Your task to perform on an android device: Go to internet settings Image 0: 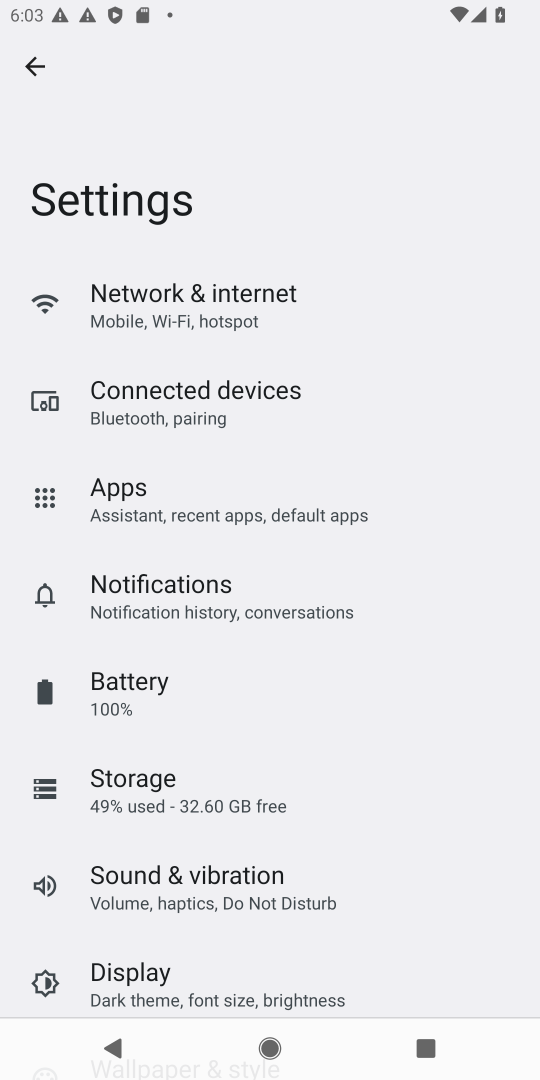
Step 0: click (135, 302)
Your task to perform on an android device: Go to internet settings Image 1: 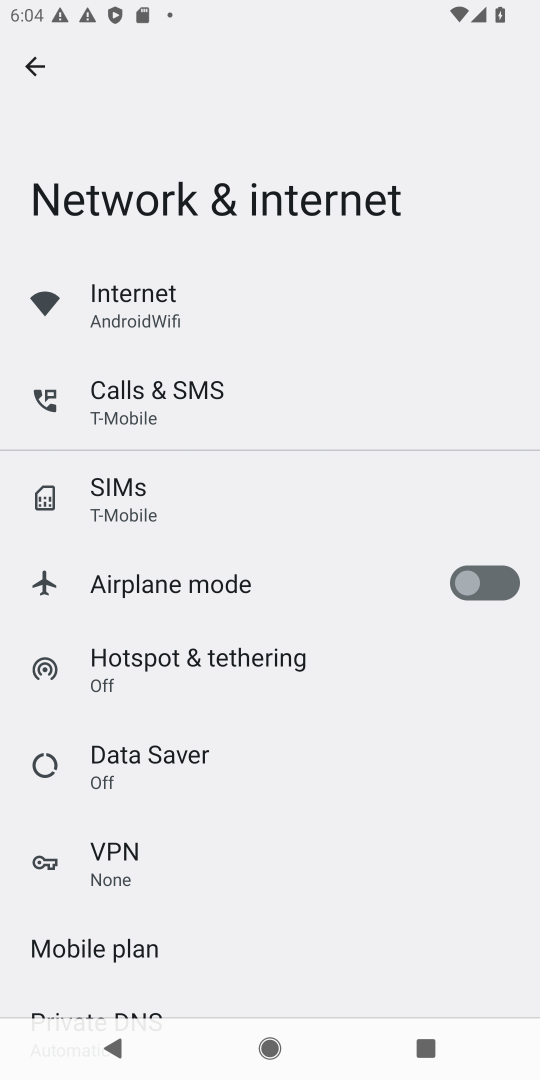
Step 1: click (97, 315)
Your task to perform on an android device: Go to internet settings Image 2: 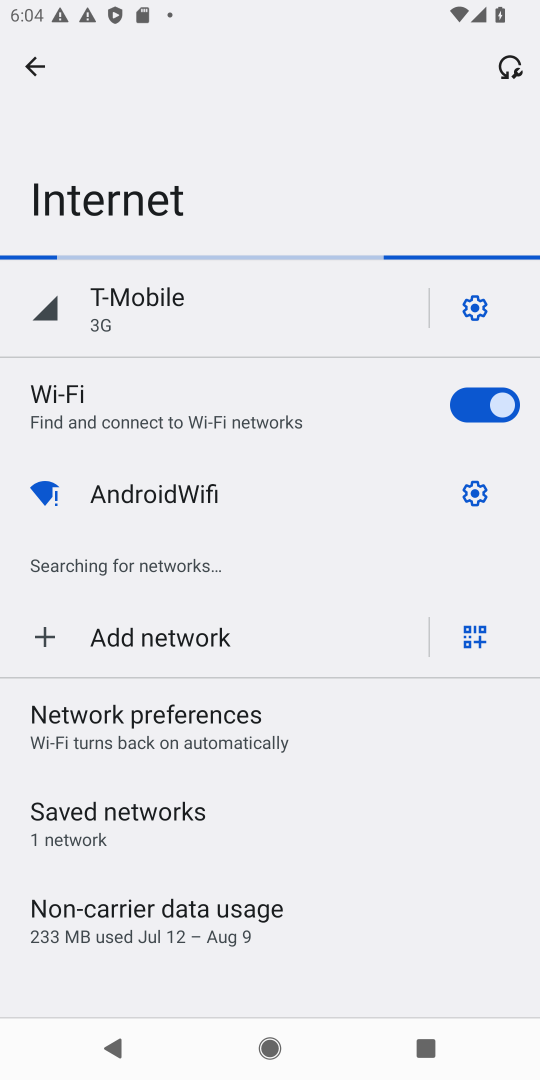
Step 2: click (469, 296)
Your task to perform on an android device: Go to internet settings Image 3: 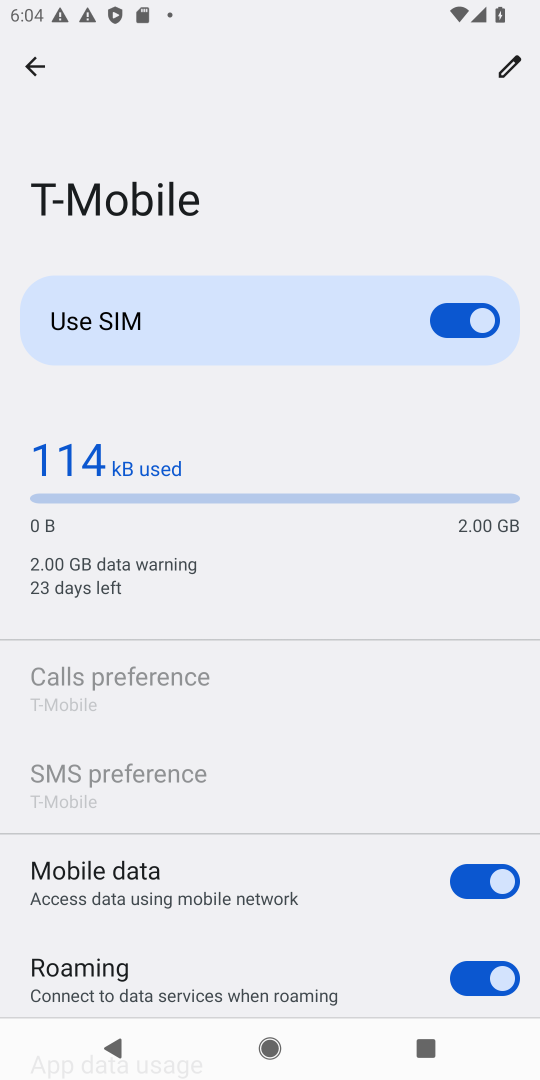
Step 3: task complete